Your task to perform on an android device: change your default location settings in chrome Image 0: 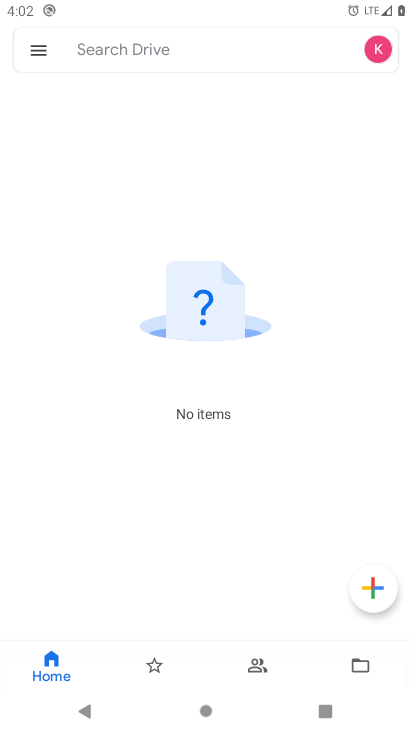
Step 0: press home button
Your task to perform on an android device: change your default location settings in chrome Image 1: 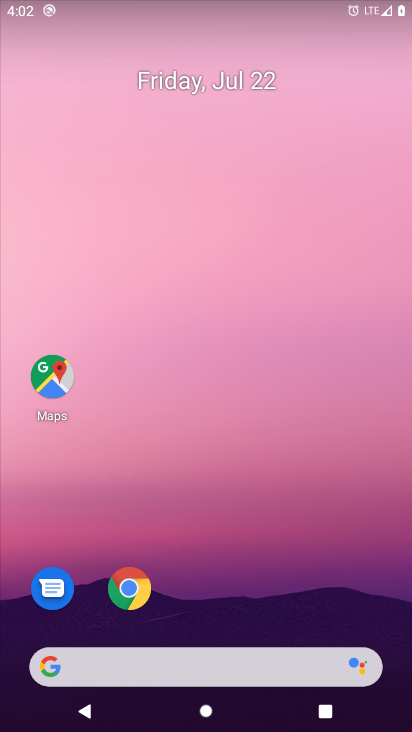
Step 1: drag from (277, 560) to (285, 43)
Your task to perform on an android device: change your default location settings in chrome Image 2: 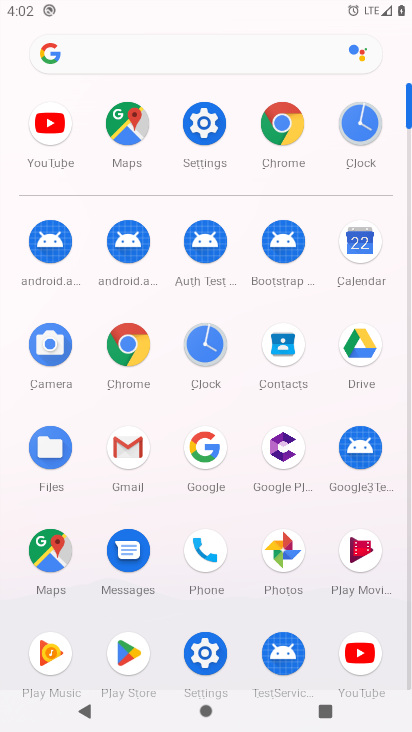
Step 2: click (205, 661)
Your task to perform on an android device: change your default location settings in chrome Image 3: 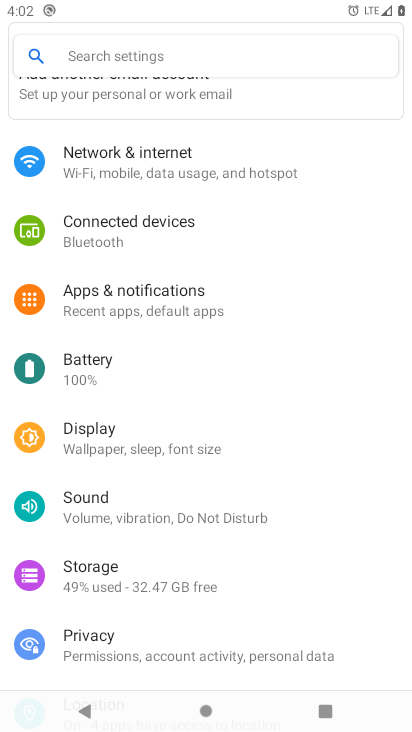
Step 3: drag from (267, 642) to (276, 186)
Your task to perform on an android device: change your default location settings in chrome Image 4: 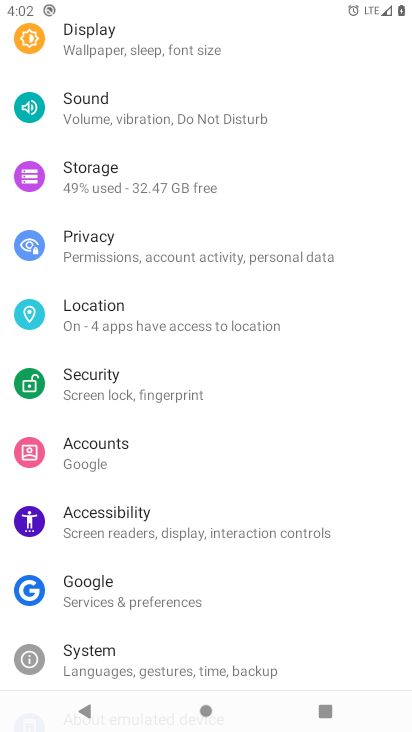
Step 4: press home button
Your task to perform on an android device: change your default location settings in chrome Image 5: 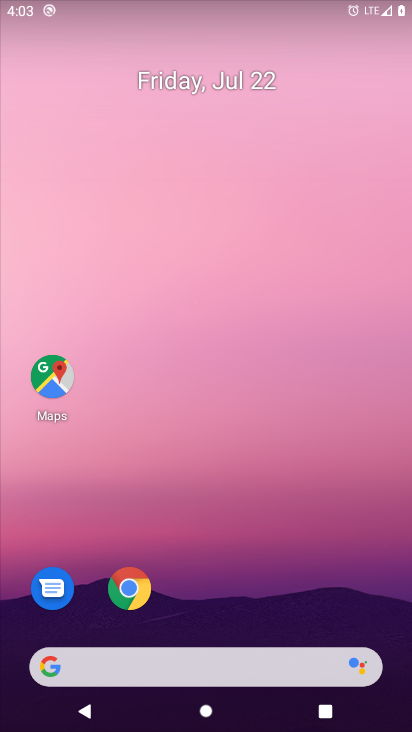
Step 5: drag from (294, 593) to (320, 66)
Your task to perform on an android device: change your default location settings in chrome Image 6: 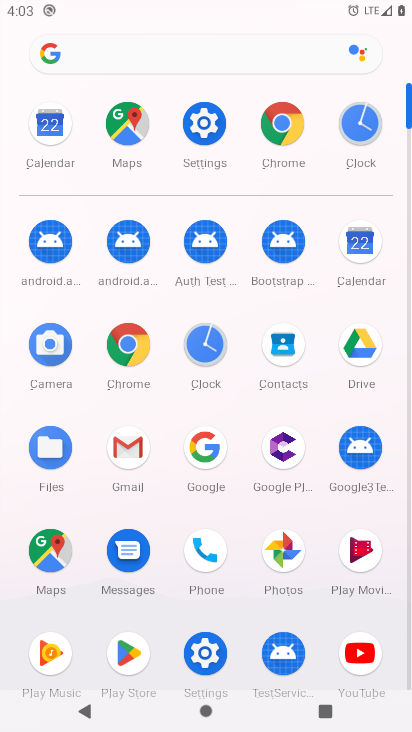
Step 6: click (135, 345)
Your task to perform on an android device: change your default location settings in chrome Image 7: 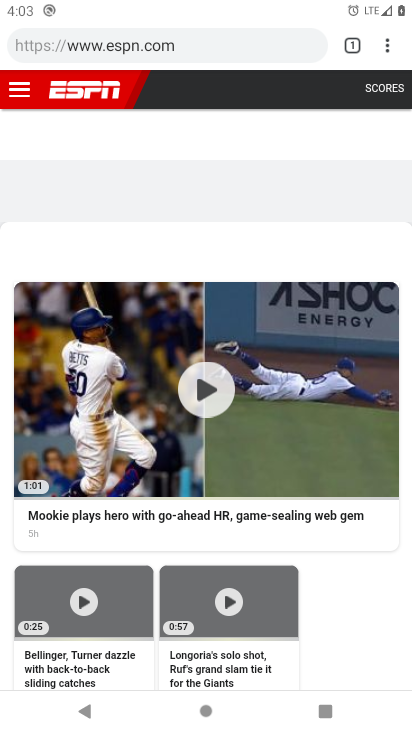
Step 7: drag from (388, 47) to (250, 543)
Your task to perform on an android device: change your default location settings in chrome Image 8: 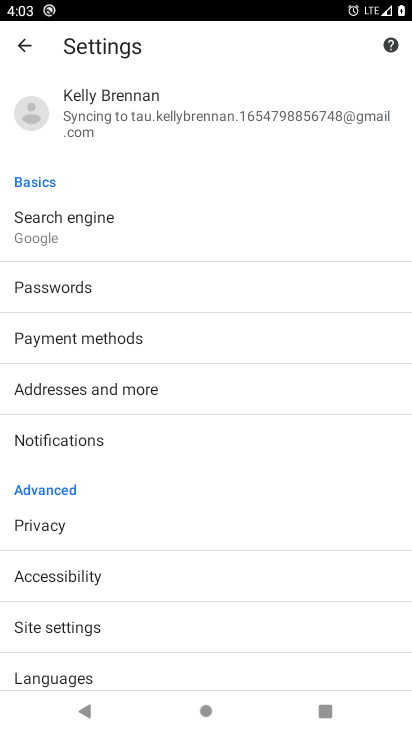
Step 8: click (97, 620)
Your task to perform on an android device: change your default location settings in chrome Image 9: 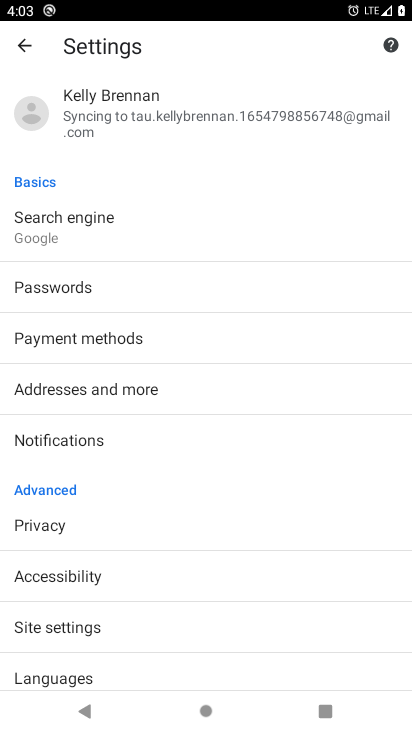
Step 9: click (81, 624)
Your task to perform on an android device: change your default location settings in chrome Image 10: 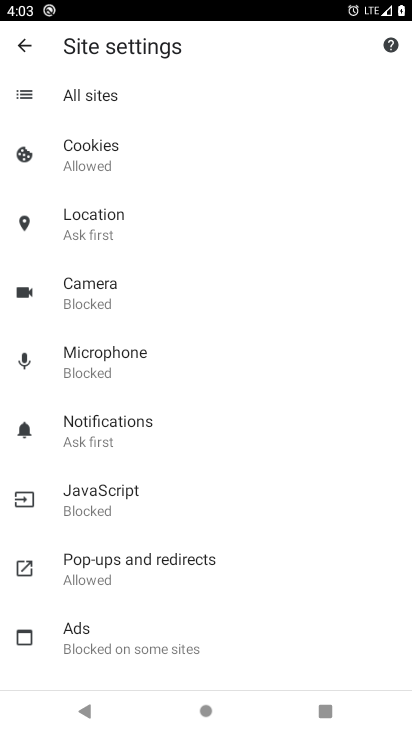
Step 10: task complete